Your task to perform on an android device: stop showing notifications on the lock screen Image 0: 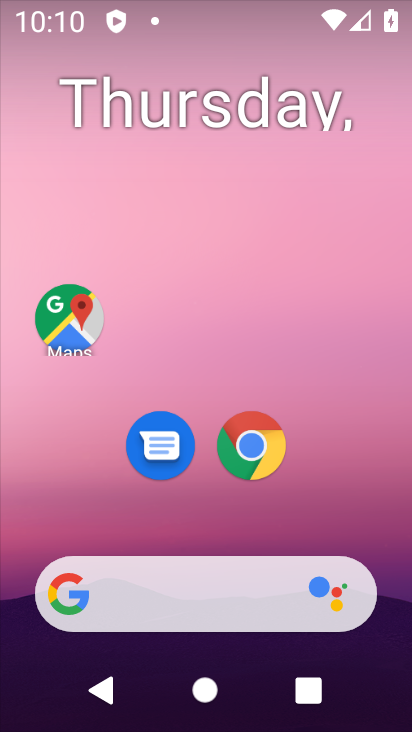
Step 0: click (249, 25)
Your task to perform on an android device: stop showing notifications on the lock screen Image 1: 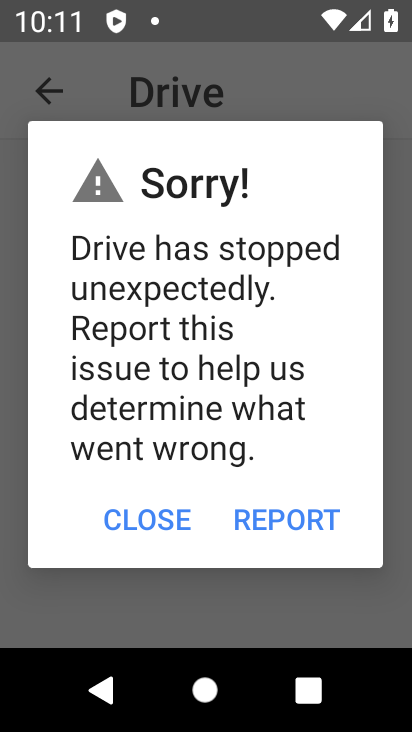
Step 1: press home button
Your task to perform on an android device: stop showing notifications on the lock screen Image 2: 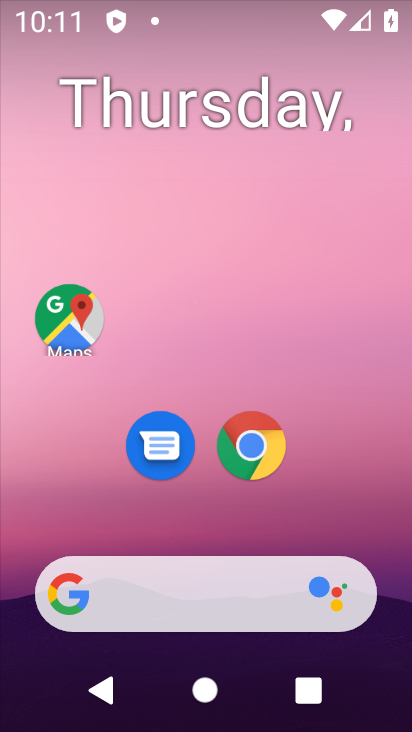
Step 2: drag from (343, 528) to (252, 50)
Your task to perform on an android device: stop showing notifications on the lock screen Image 3: 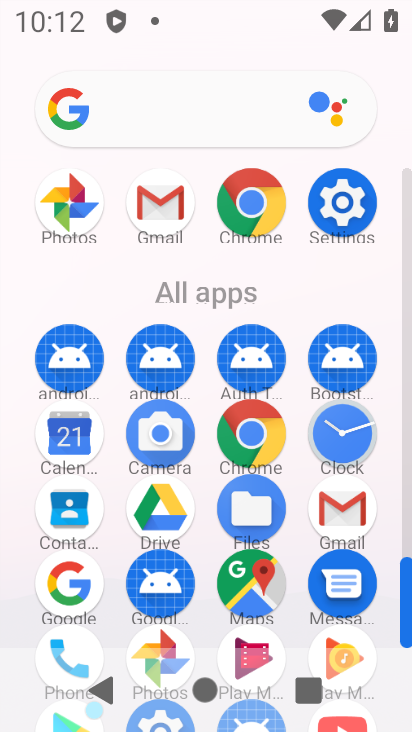
Step 3: click (353, 218)
Your task to perform on an android device: stop showing notifications on the lock screen Image 4: 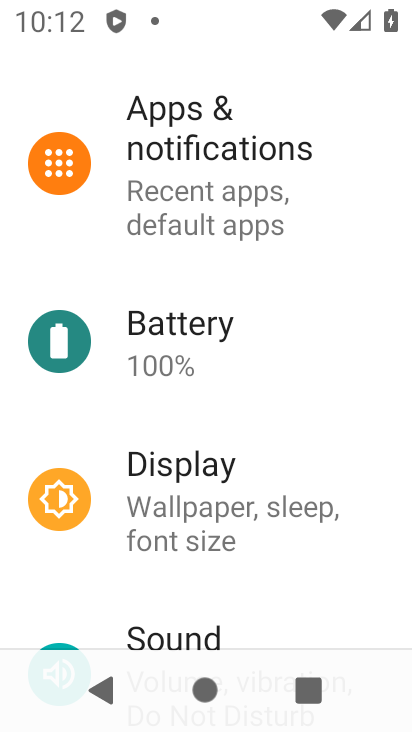
Step 4: click (236, 196)
Your task to perform on an android device: stop showing notifications on the lock screen Image 5: 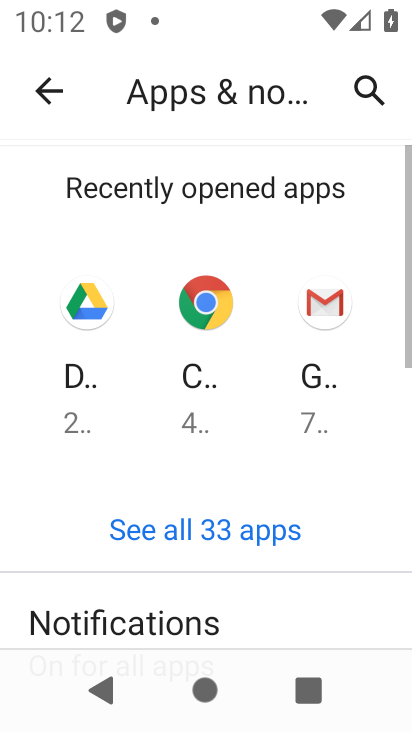
Step 5: click (208, 606)
Your task to perform on an android device: stop showing notifications on the lock screen Image 6: 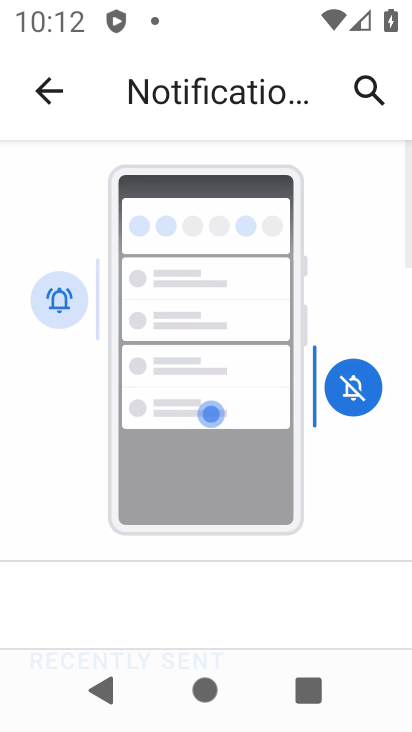
Step 6: drag from (181, 612) to (230, 78)
Your task to perform on an android device: stop showing notifications on the lock screen Image 7: 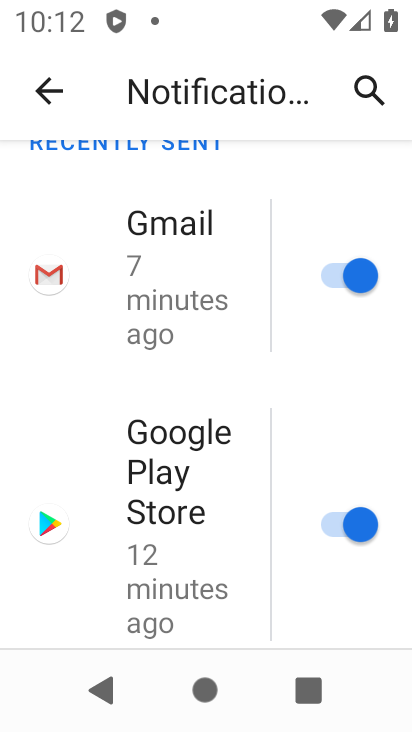
Step 7: drag from (195, 578) to (188, 75)
Your task to perform on an android device: stop showing notifications on the lock screen Image 8: 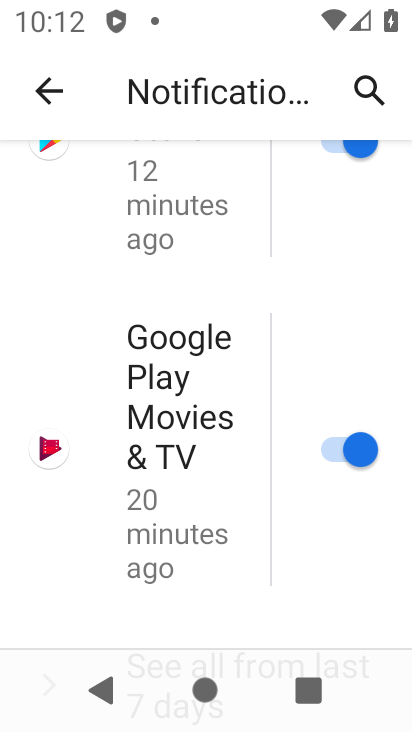
Step 8: drag from (211, 555) to (203, 36)
Your task to perform on an android device: stop showing notifications on the lock screen Image 9: 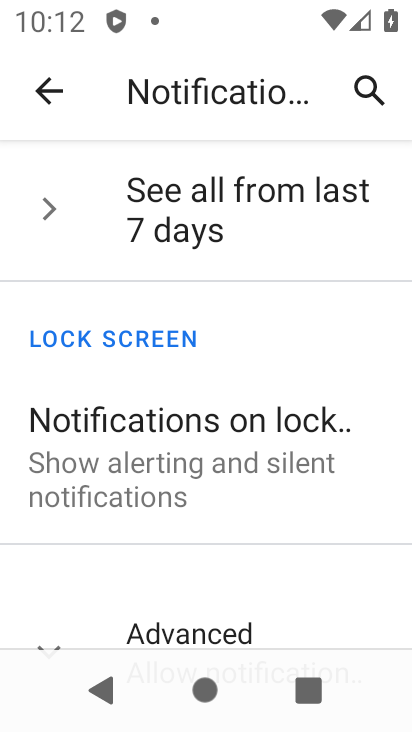
Step 9: click (226, 496)
Your task to perform on an android device: stop showing notifications on the lock screen Image 10: 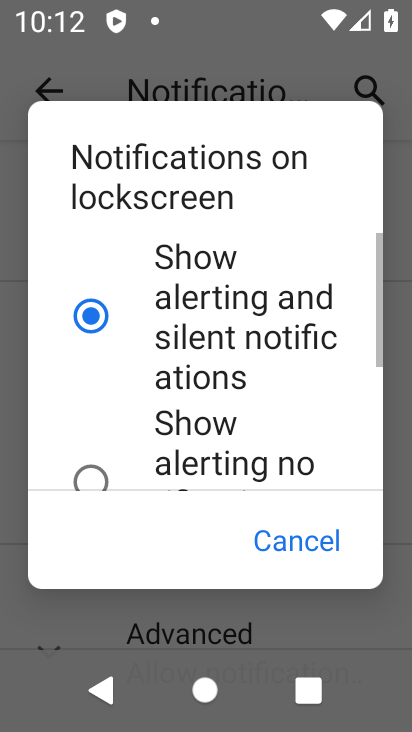
Step 10: drag from (139, 466) to (129, 28)
Your task to perform on an android device: stop showing notifications on the lock screen Image 11: 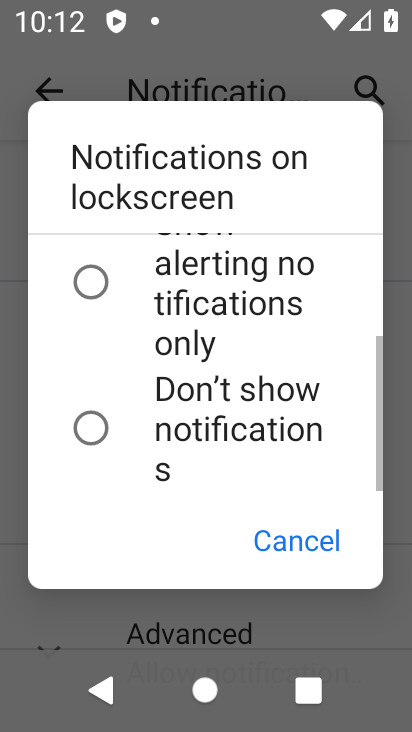
Step 11: click (99, 418)
Your task to perform on an android device: stop showing notifications on the lock screen Image 12: 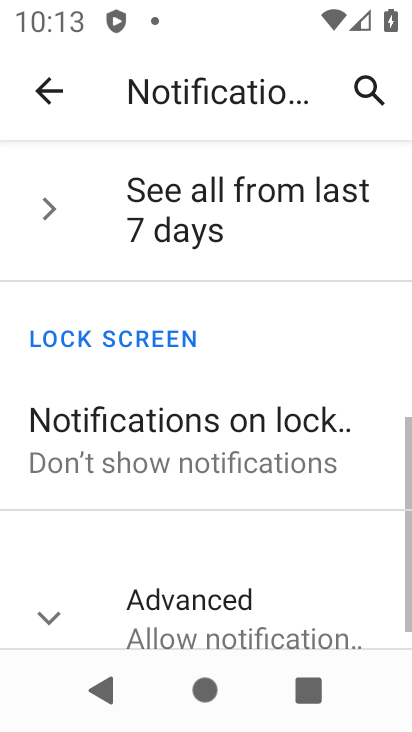
Step 12: task complete